Your task to perform on an android device: Open location settings Image 0: 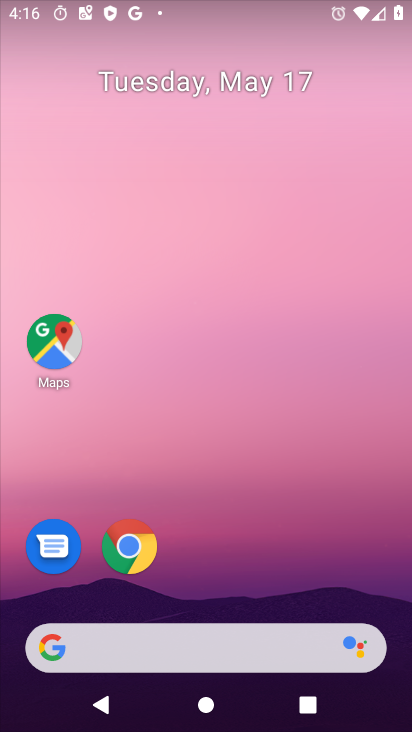
Step 0: click (369, 341)
Your task to perform on an android device: Open location settings Image 1: 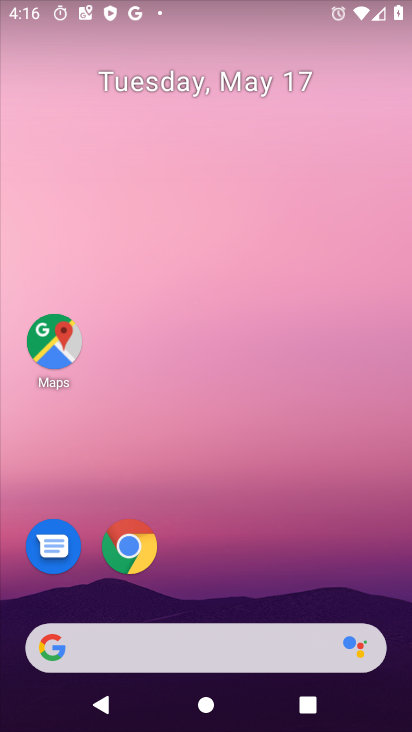
Step 1: drag from (395, 605) to (353, 337)
Your task to perform on an android device: Open location settings Image 2: 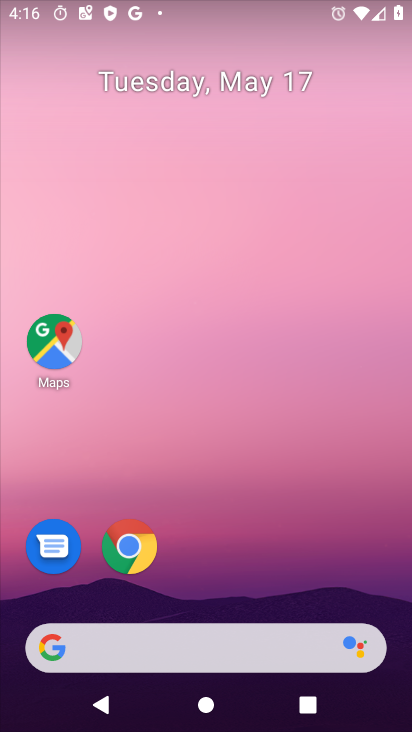
Step 2: drag from (406, 685) to (397, 250)
Your task to perform on an android device: Open location settings Image 3: 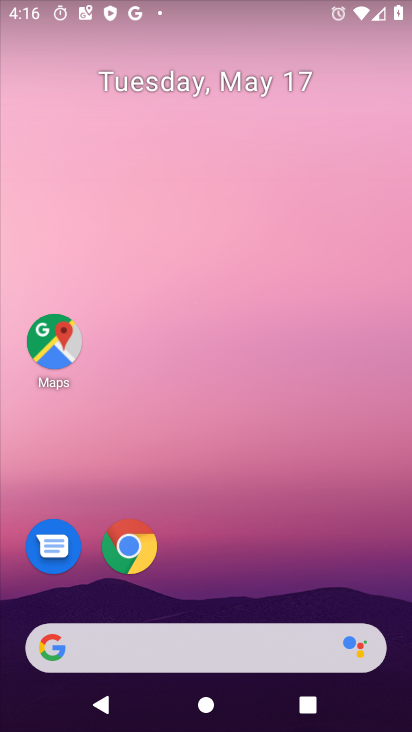
Step 3: drag from (402, 651) to (365, 356)
Your task to perform on an android device: Open location settings Image 4: 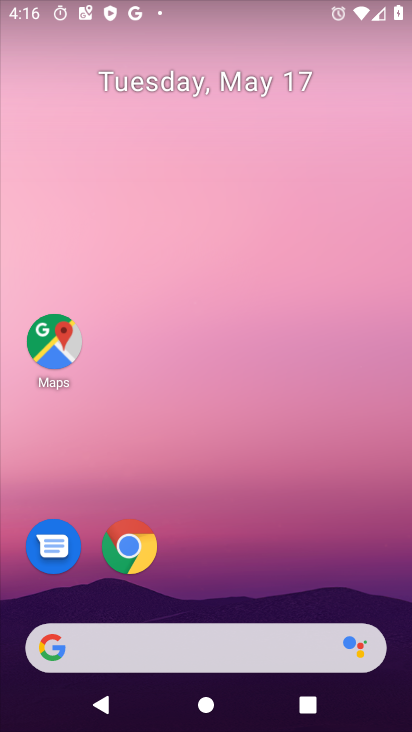
Step 4: drag from (402, 691) to (360, 189)
Your task to perform on an android device: Open location settings Image 5: 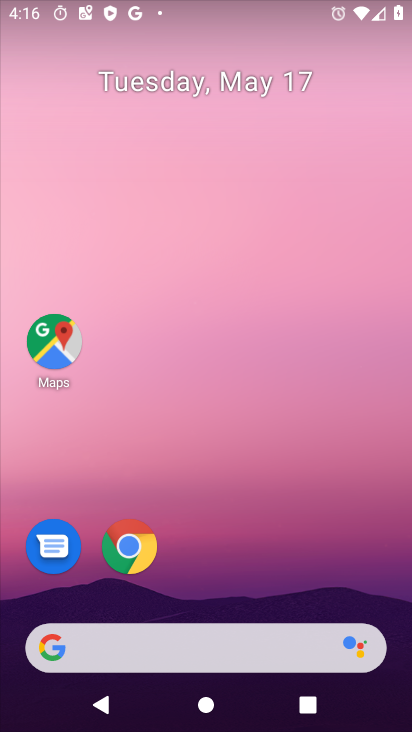
Step 5: drag from (397, 674) to (375, 228)
Your task to perform on an android device: Open location settings Image 6: 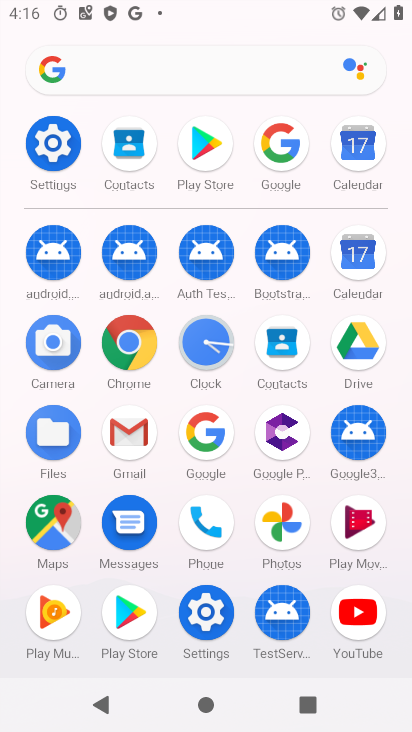
Step 6: click (36, 149)
Your task to perform on an android device: Open location settings Image 7: 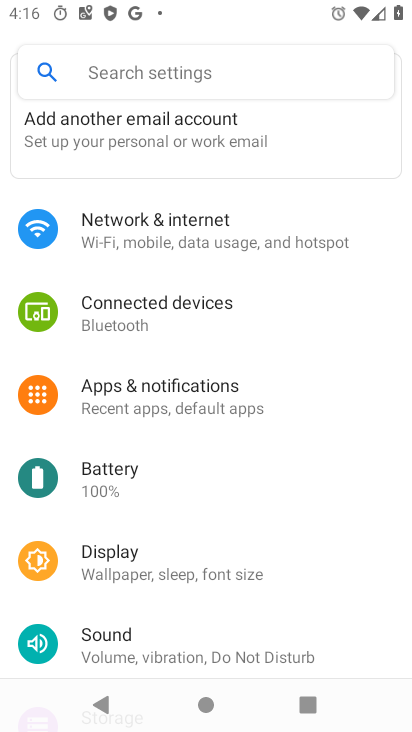
Step 7: drag from (337, 619) to (329, 361)
Your task to perform on an android device: Open location settings Image 8: 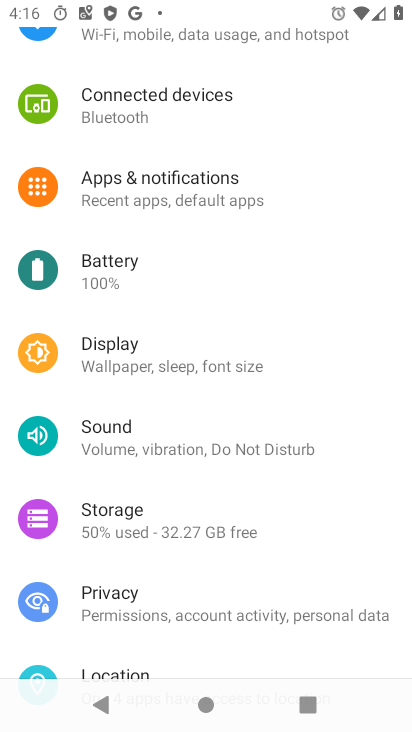
Step 8: drag from (353, 641) to (334, 433)
Your task to perform on an android device: Open location settings Image 9: 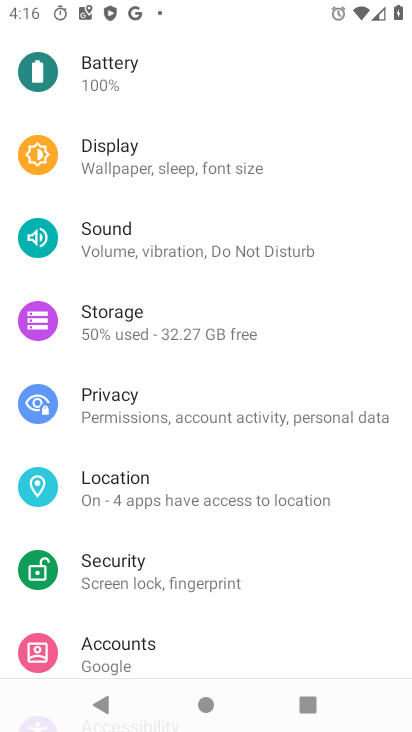
Step 9: click (109, 488)
Your task to perform on an android device: Open location settings Image 10: 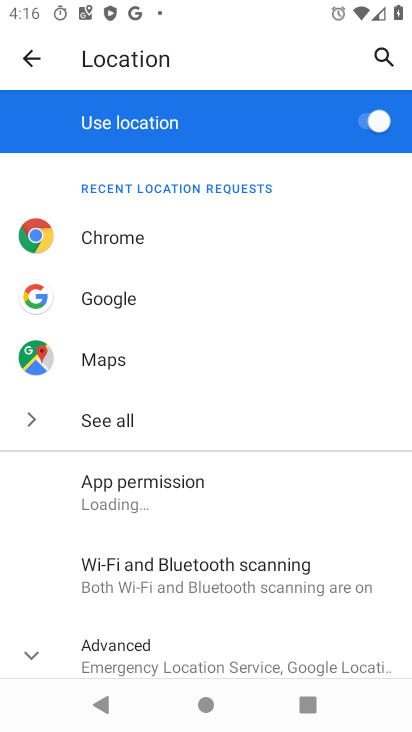
Step 10: task complete